Your task to perform on an android device: set an alarm Image 0: 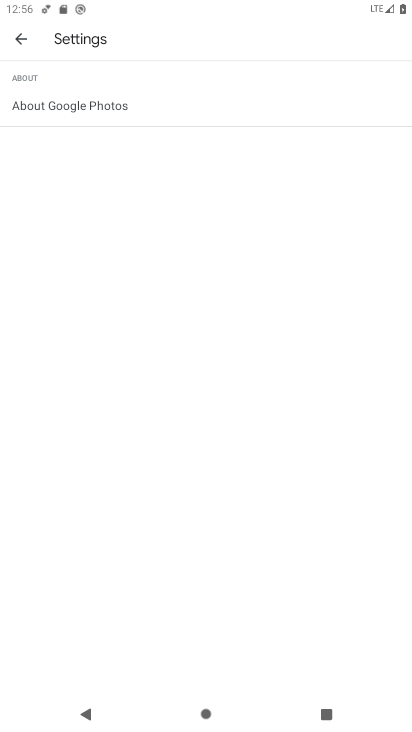
Step 0: press home button
Your task to perform on an android device: set an alarm Image 1: 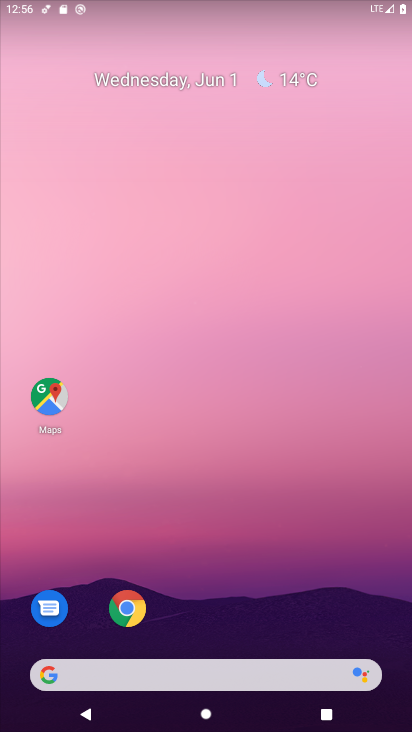
Step 1: drag from (207, 533) to (237, 0)
Your task to perform on an android device: set an alarm Image 2: 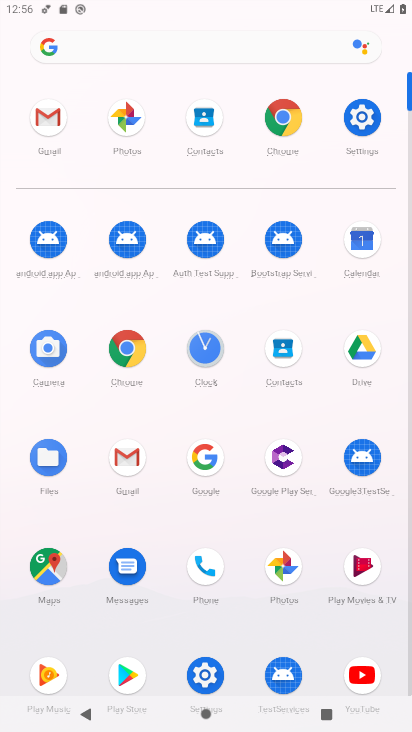
Step 2: click (210, 357)
Your task to perform on an android device: set an alarm Image 3: 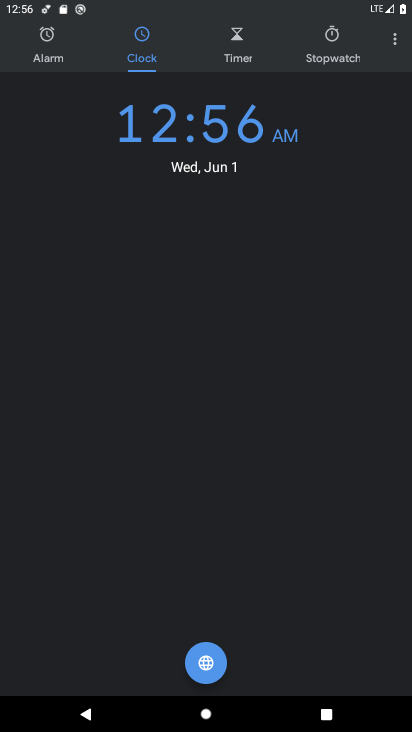
Step 3: click (58, 37)
Your task to perform on an android device: set an alarm Image 4: 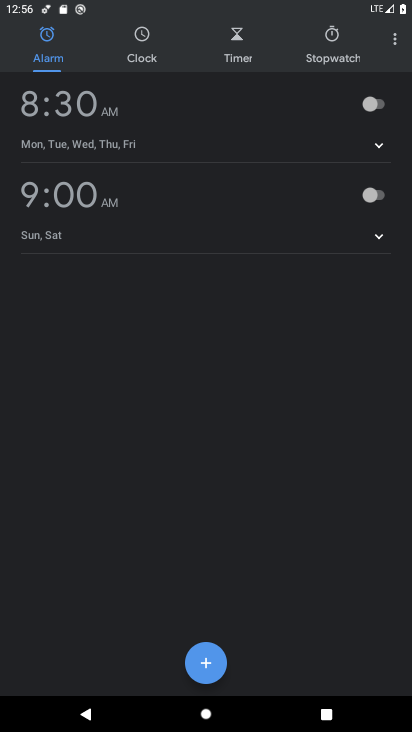
Step 4: click (95, 124)
Your task to perform on an android device: set an alarm Image 5: 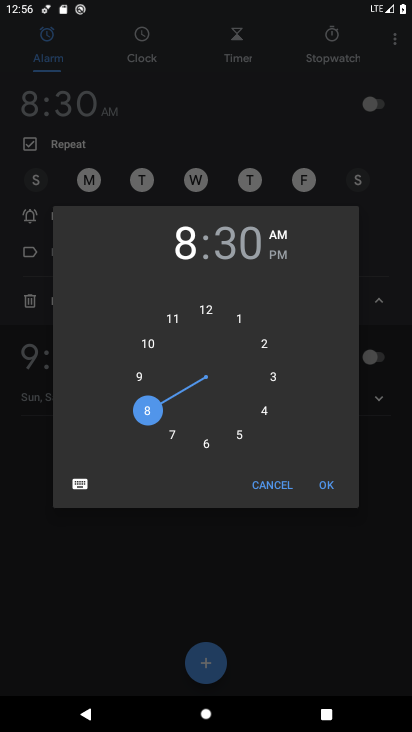
Step 5: click (150, 339)
Your task to perform on an android device: set an alarm Image 6: 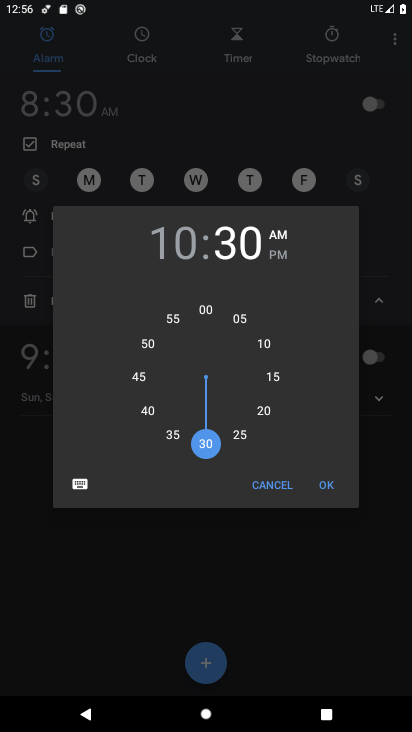
Step 6: click (259, 419)
Your task to perform on an android device: set an alarm Image 7: 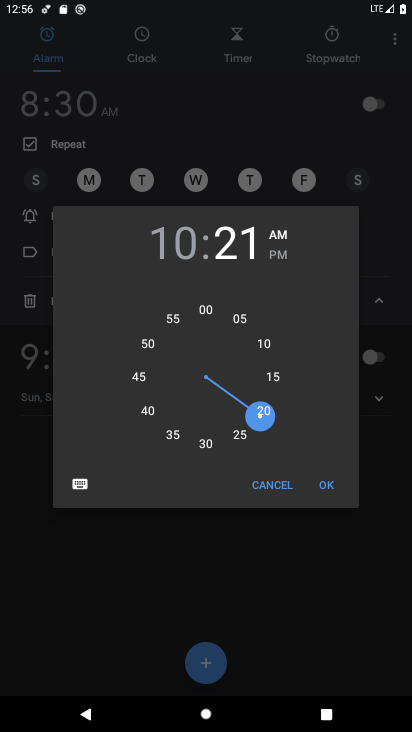
Step 7: click (283, 254)
Your task to perform on an android device: set an alarm Image 8: 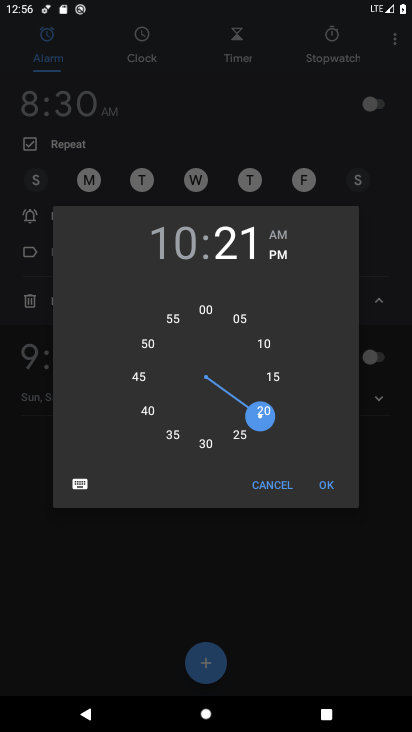
Step 8: click (328, 486)
Your task to perform on an android device: set an alarm Image 9: 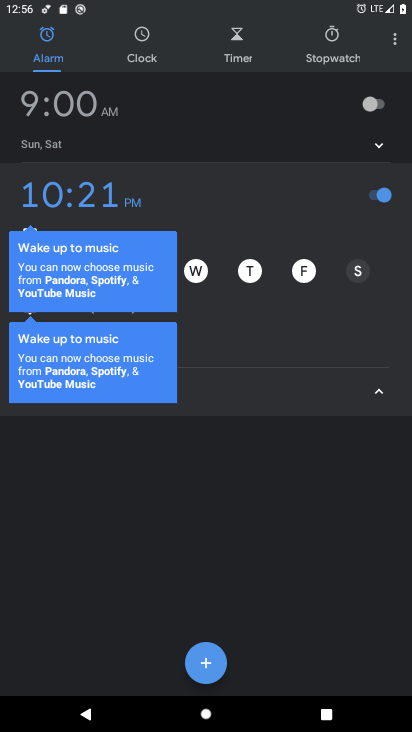
Step 9: task complete